Your task to perform on an android device: Go to Google Image 0: 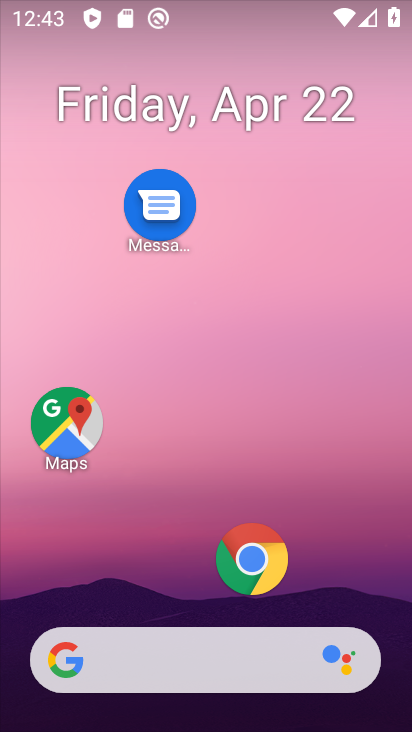
Step 0: drag from (192, 7) to (204, 581)
Your task to perform on an android device: Go to Google Image 1: 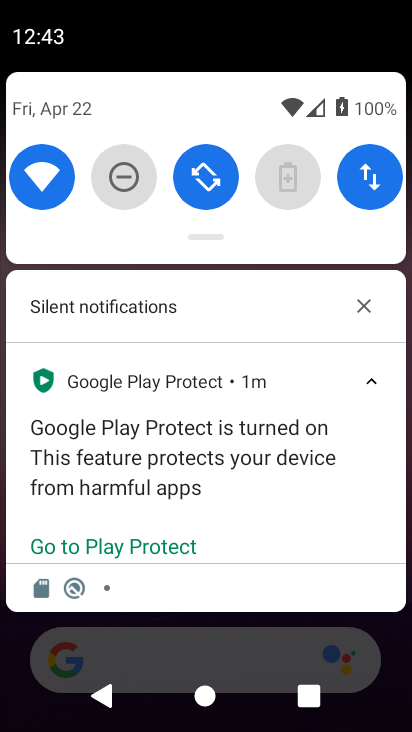
Step 1: click (125, 175)
Your task to perform on an android device: Go to Google Image 2: 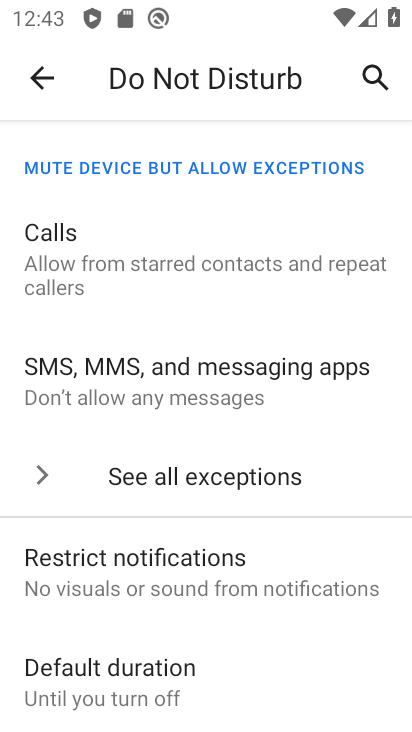
Step 2: drag from (190, 4) to (190, 545)
Your task to perform on an android device: Go to Google Image 3: 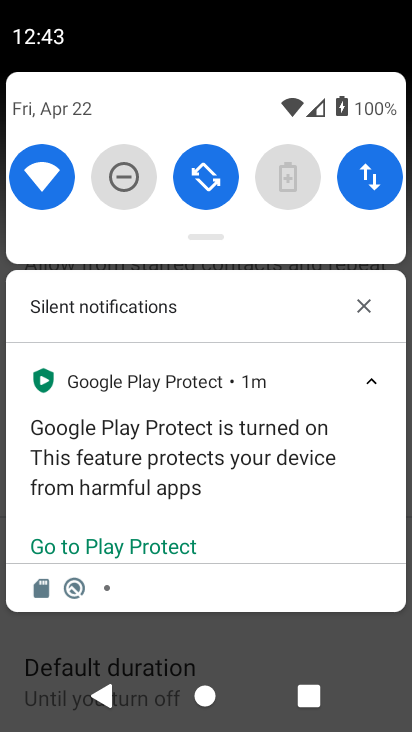
Step 3: click (119, 179)
Your task to perform on an android device: Go to Google Image 4: 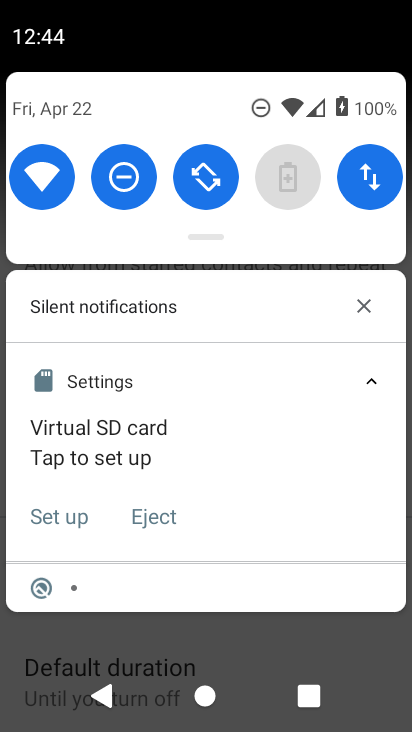
Step 4: task complete